Your task to perform on an android device: choose inbox layout in the gmail app Image 0: 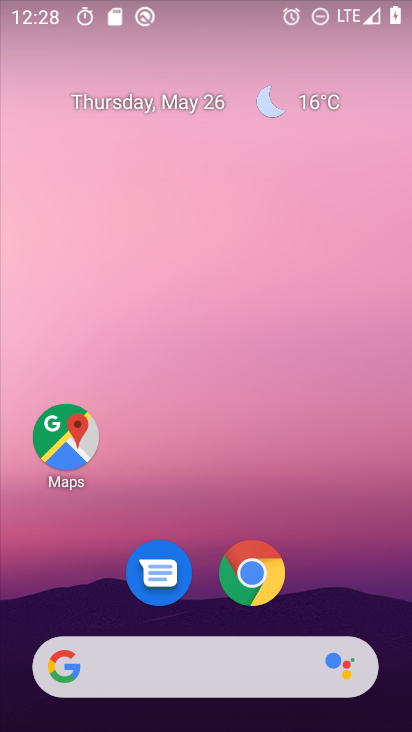
Step 0: drag from (362, 594) to (339, 0)
Your task to perform on an android device: choose inbox layout in the gmail app Image 1: 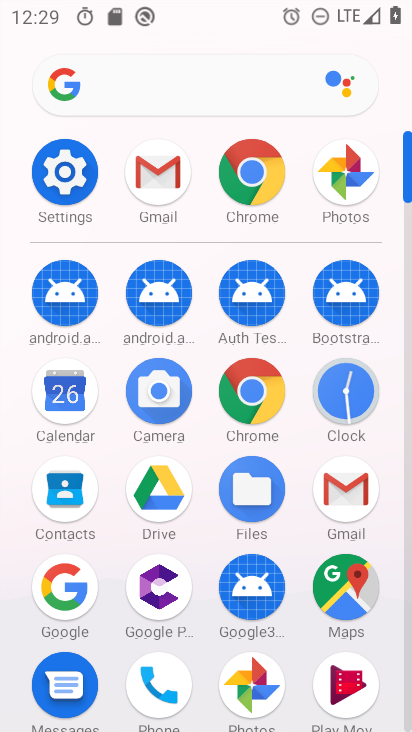
Step 1: click (151, 174)
Your task to perform on an android device: choose inbox layout in the gmail app Image 2: 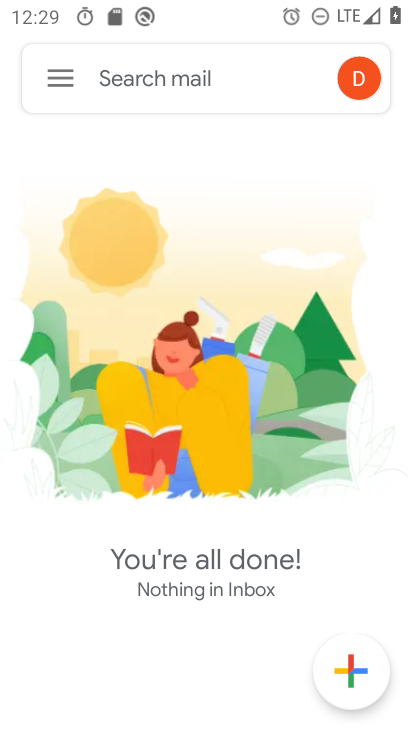
Step 2: click (58, 78)
Your task to perform on an android device: choose inbox layout in the gmail app Image 3: 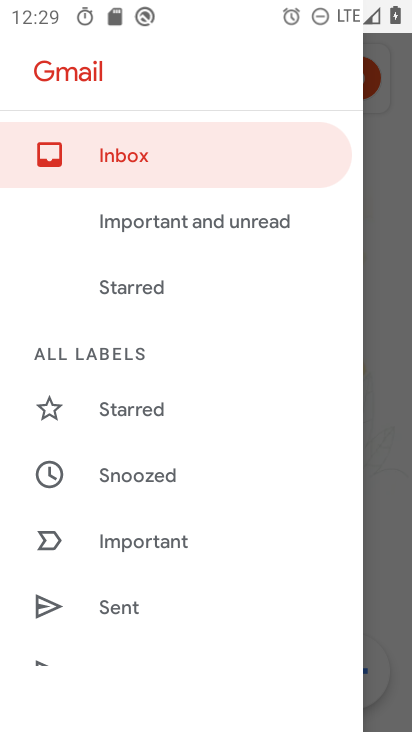
Step 3: drag from (223, 523) to (204, 180)
Your task to perform on an android device: choose inbox layout in the gmail app Image 4: 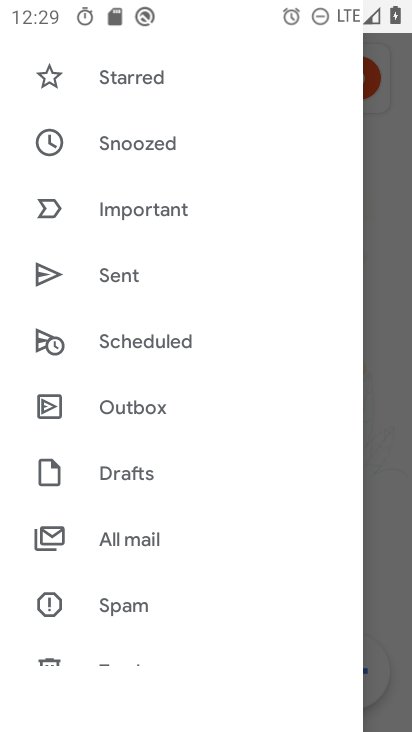
Step 4: drag from (174, 549) to (170, 195)
Your task to perform on an android device: choose inbox layout in the gmail app Image 5: 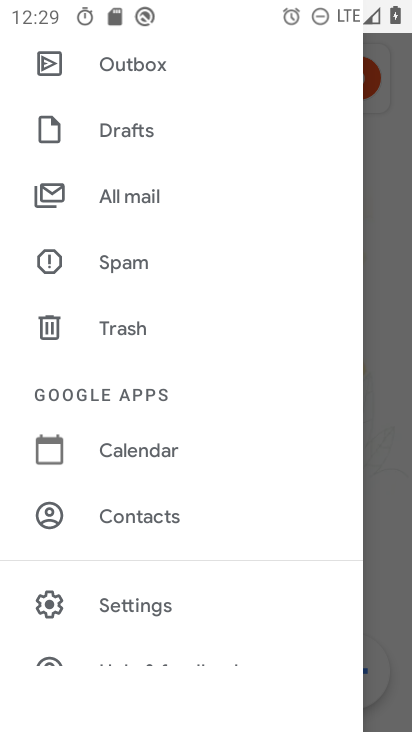
Step 5: click (129, 608)
Your task to perform on an android device: choose inbox layout in the gmail app Image 6: 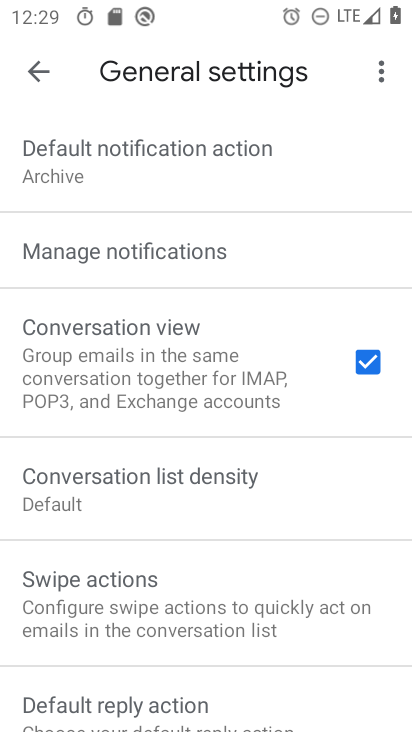
Step 6: click (32, 80)
Your task to perform on an android device: choose inbox layout in the gmail app Image 7: 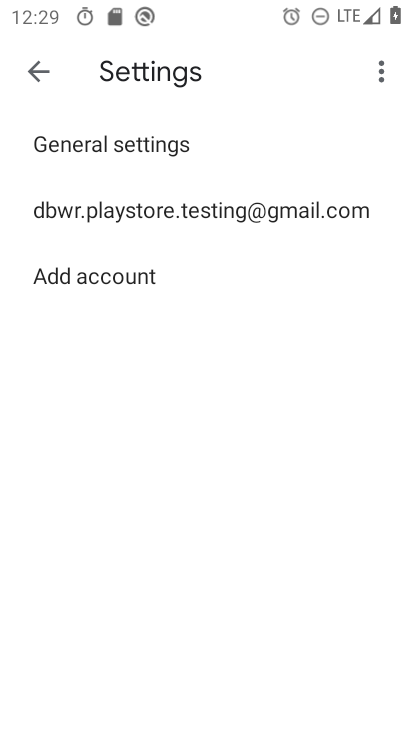
Step 7: click (97, 212)
Your task to perform on an android device: choose inbox layout in the gmail app Image 8: 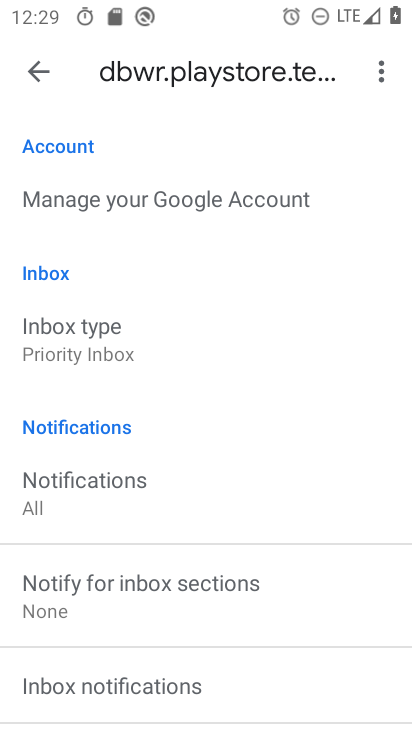
Step 8: click (66, 341)
Your task to perform on an android device: choose inbox layout in the gmail app Image 9: 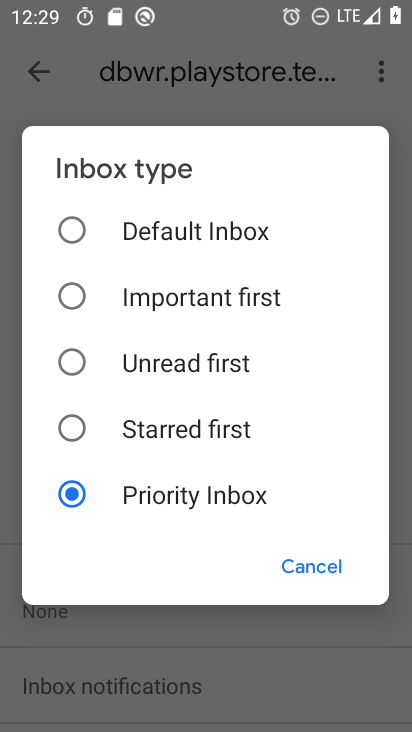
Step 9: click (68, 351)
Your task to perform on an android device: choose inbox layout in the gmail app Image 10: 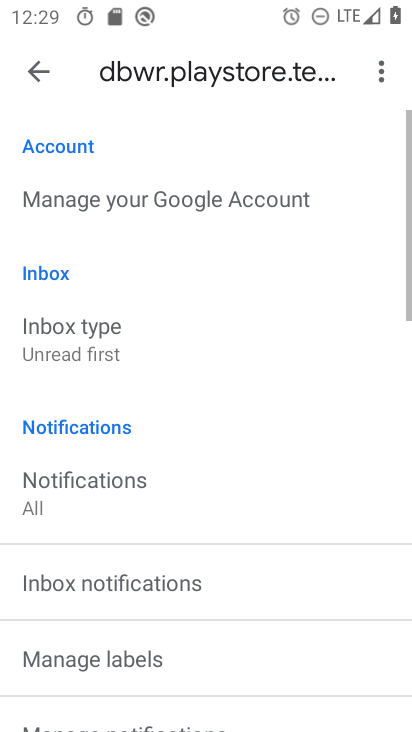
Step 10: task complete